Your task to perform on an android device: Go to accessibility settings Image 0: 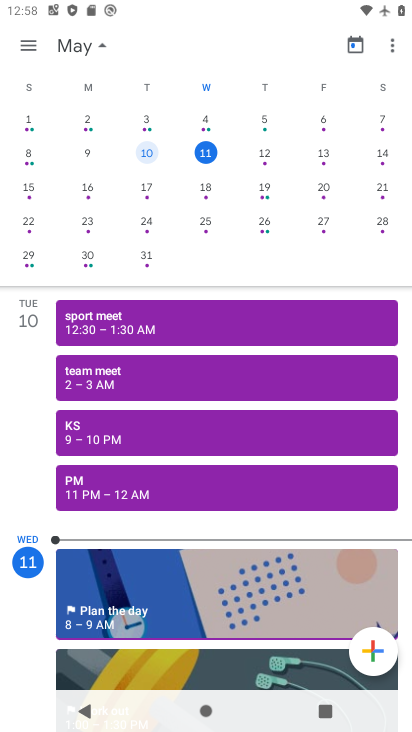
Step 0: press home button
Your task to perform on an android device: Go to accessibility settings Image 1: 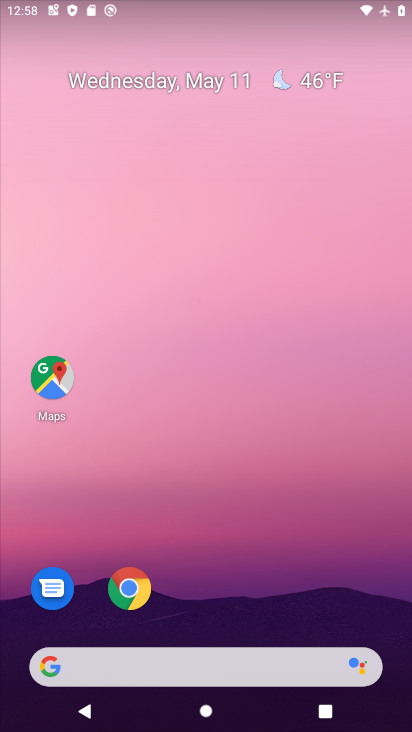
Step 1: drag from (264, 534) to (272, 104)
Your task to perform on an android device: Go to accessibility settings Image 2: 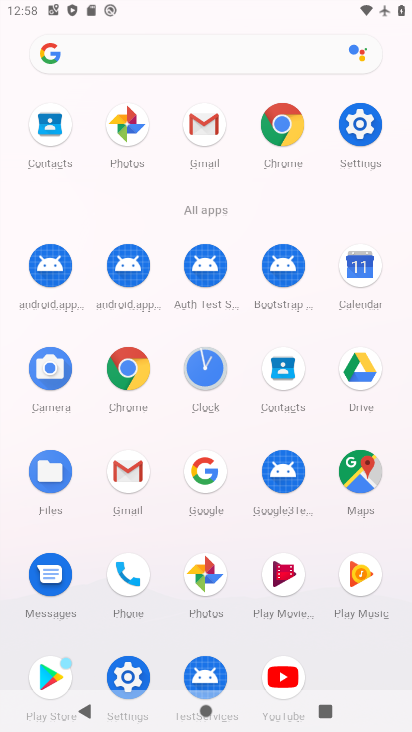
Step 2: click (378, 120)
Your task to perform on an android device: Go to accessibility settings Image 3: 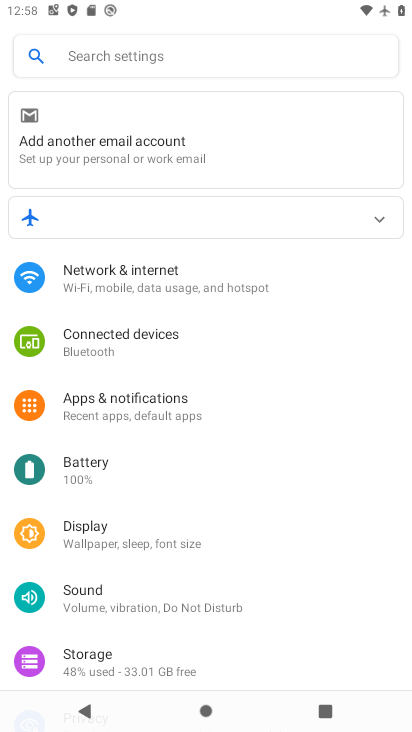
Step 3: drag from (161, 628) to (161, 225)
Your task to perform on an android device: Go to accessibility settings Image 4: 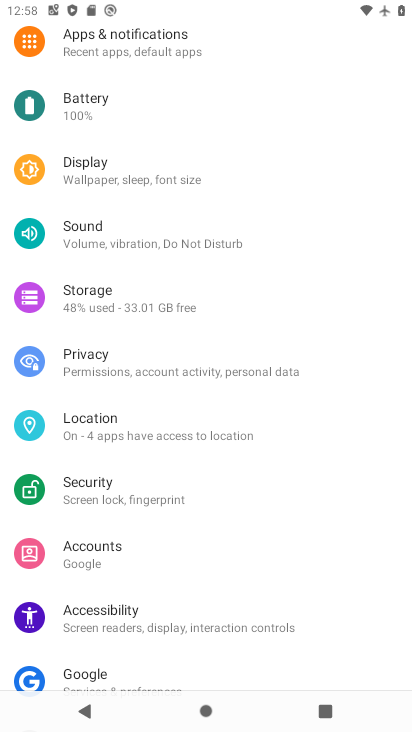
Step 4: click (98, 618)
Your task to perform on an android device: Go to accessibility settings Image 5: 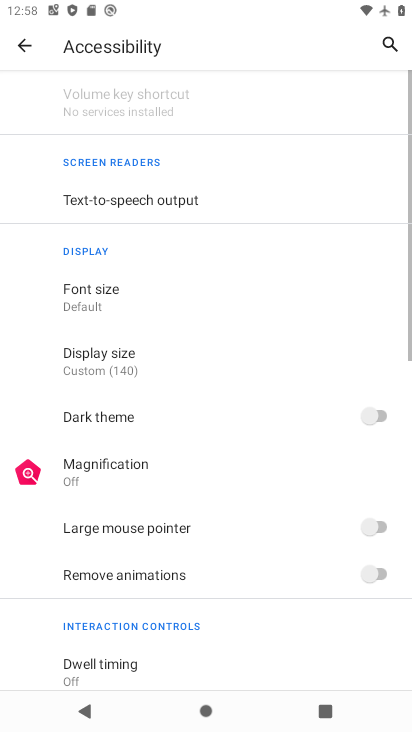
Step 5: task complete